Your task to perform on an android device: allow notifications from all sites in the chrome app Image 0: 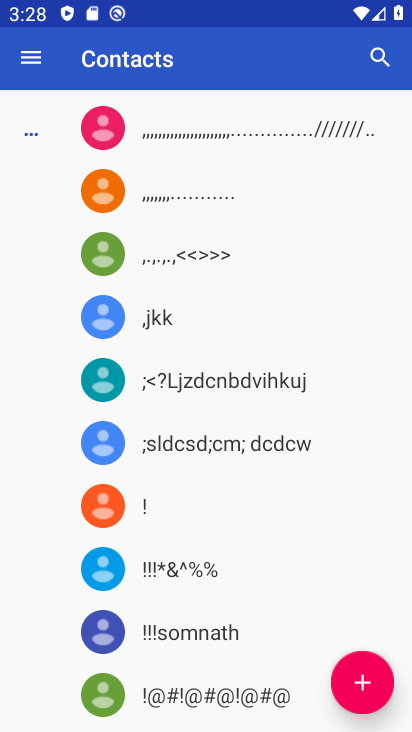
Step 0: press home button
Your task to perform on an android device: allow notifications from all sites in the chrome app Image 1: 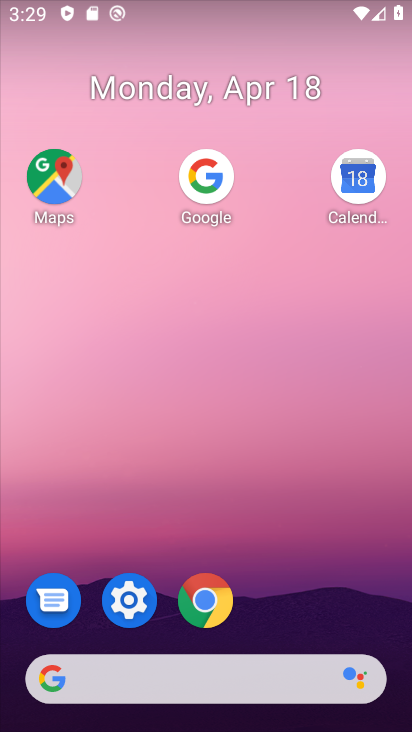
Step 1: click (190, 89)
Your task to perform on an android device: allow notifications from all sites in the chrome app Image 2: 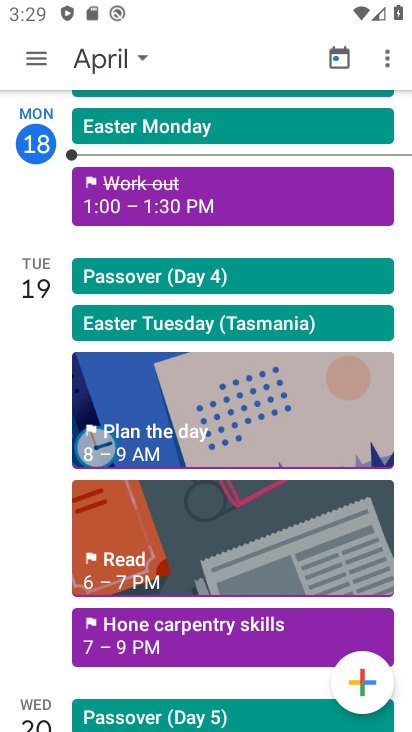
Step 2: click (209, 594)
Your task to perform on an android device: allow notifications from all sites in the chrome app Image 3: 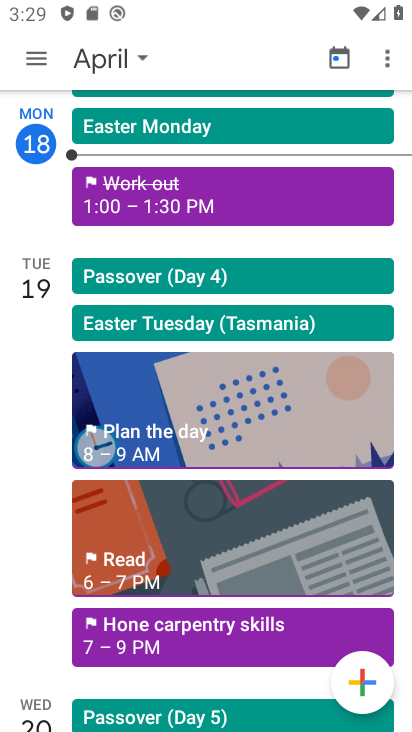
Step 3: drag from (332, 561) to (235, 165)
Your task to perform on an android device: allow notifications from all sites in the chrome app Image 4: 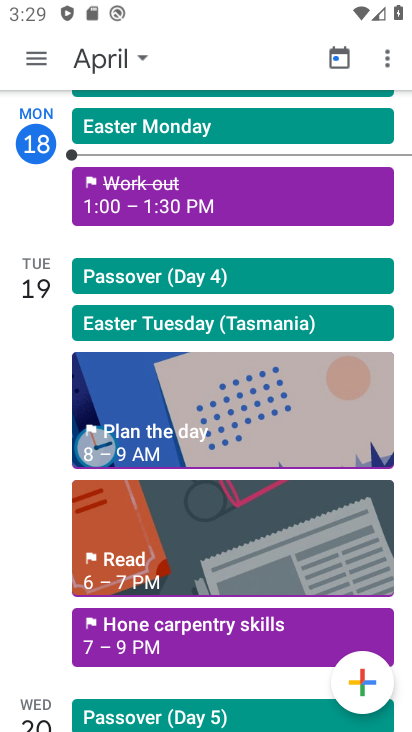
Step 4: press home button
Your task to perform on an android device: allow notifications from all sites in the chrome app Image 5: 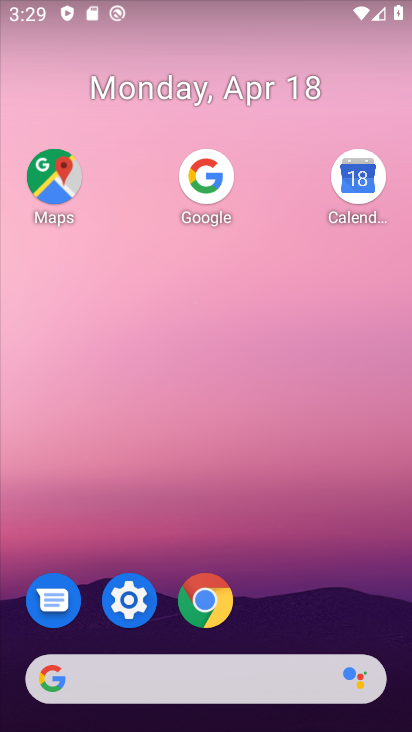
Step 5: drag from (336, 615) to (106, 78)
Your task to perform on an android device: allow notifications from all sites in the chrome app Image 6: 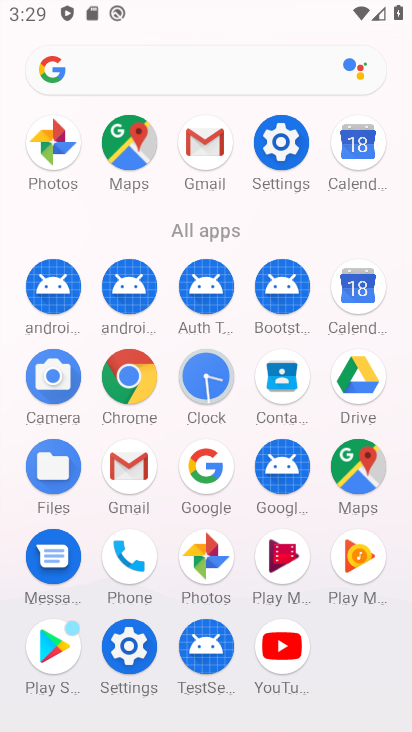
Step 6: click (132, 379)
Your task to perform on an android device: allow notifications from all sites in the chrome app Image 7: 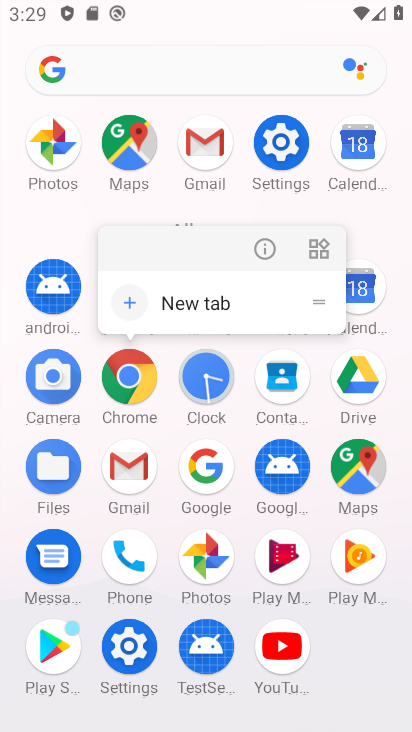
Step 7: click (132, 379)
Your task to perform on an android device: allow notifications from all sites in the chrome app Image 8: 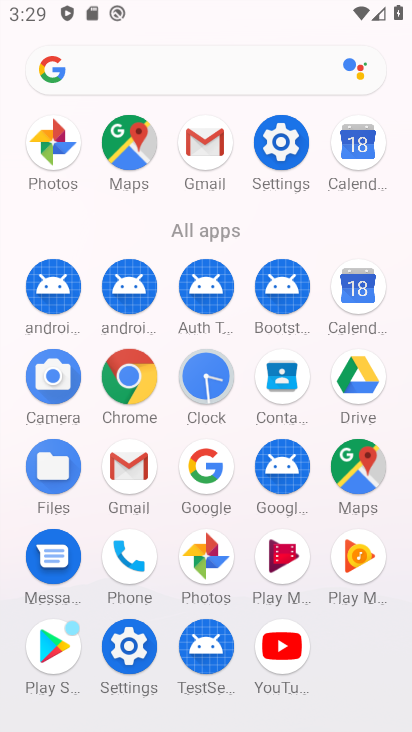
Step 8: click (132, 379)
Your task to perform on an android device: allow notifications from all sites in the chrome app Image 9: 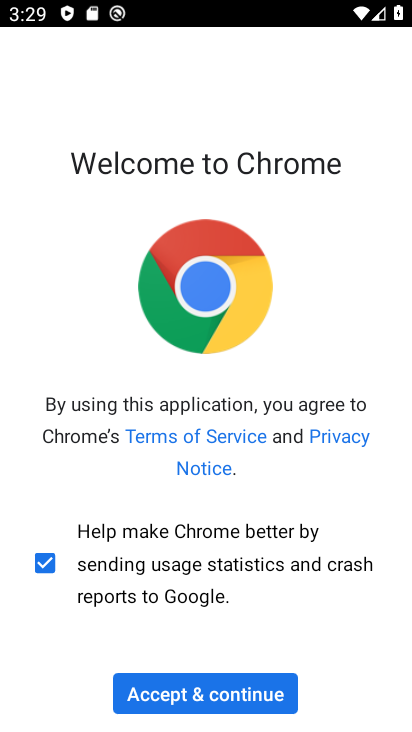
Step 9: click (213, 700)
Your task to perform on an android device: allow notifications from all sites in the chrome app Image 10: 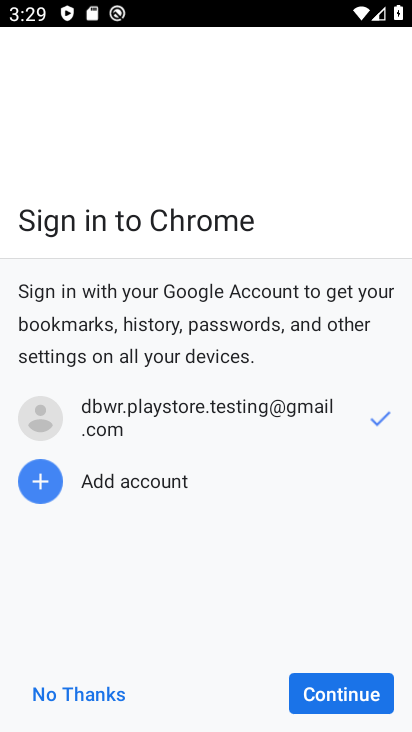
Step 10: click (325, 691)
Your task to perform on an android device: allow notifications from all sites in the chrome app Image 11: 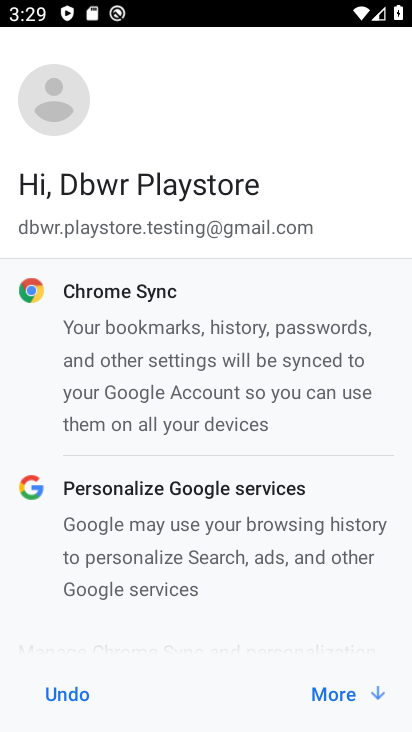
Step 11: click (346, 686)
Your task to perform on an android device: allow notifications from all sites in the chrome app Image 12: 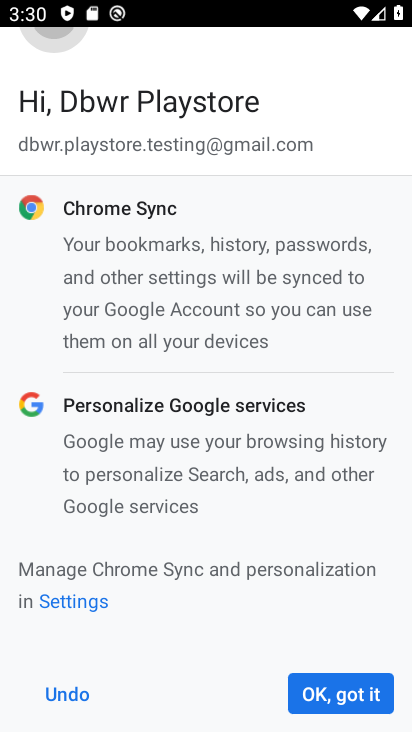
Step 12: click (346, 698)
Your task to perform on an android device: allow notifications from all sites in the chrome app Image 13: 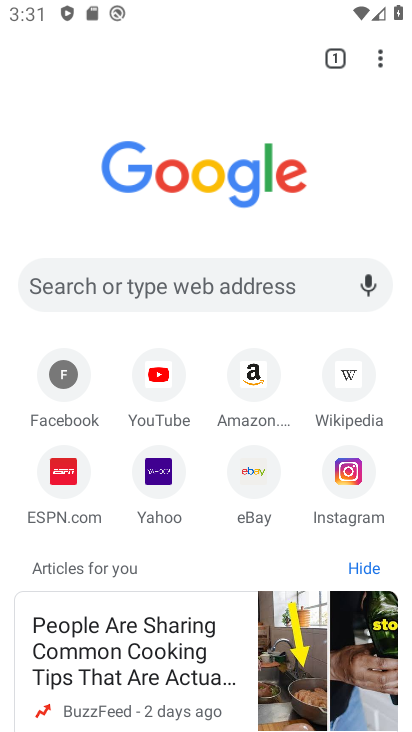
Step 13: click (377, 53)
Your task to perform on an android device: allow notifications from all sites in the chrome app Image 14: 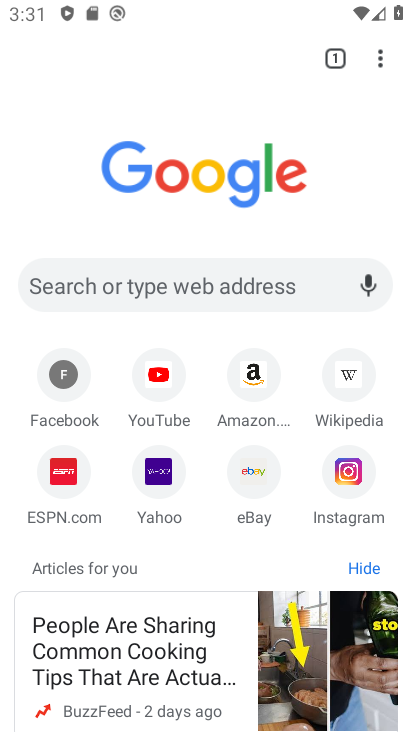
Step 14: click (378, 61)
Your task to perform on an android device: allow notifications from all sites in the chrome app Image 15: 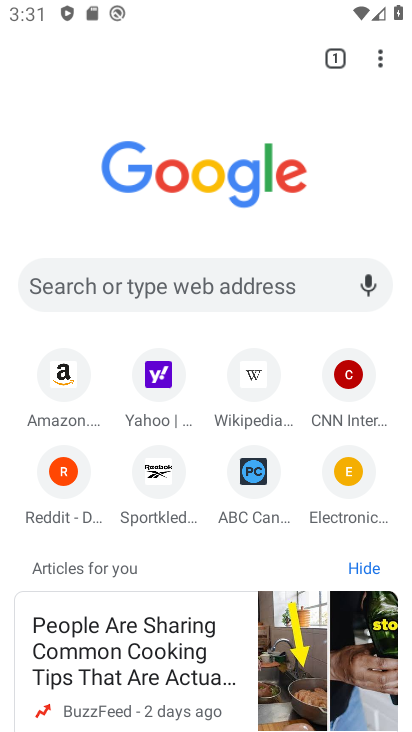
Step 15: click (374, 59)
Your task to perform on an android device: allow notifications from all sites in the chrome app Image 16: 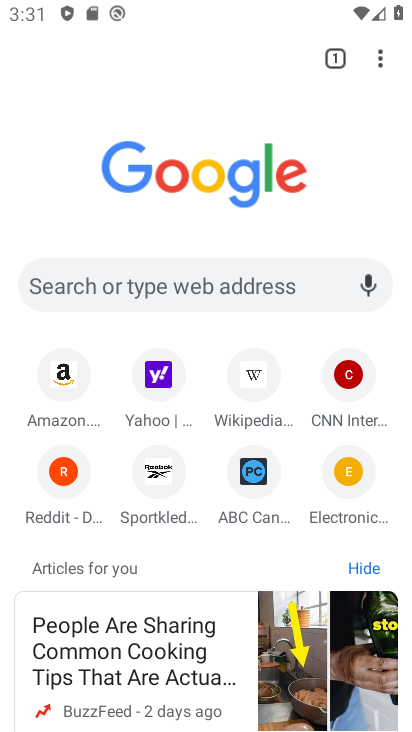
Step 16: click (374, 45)
Your task to perform on an android device: allow notifications from all sites in the chrome app Image 17: 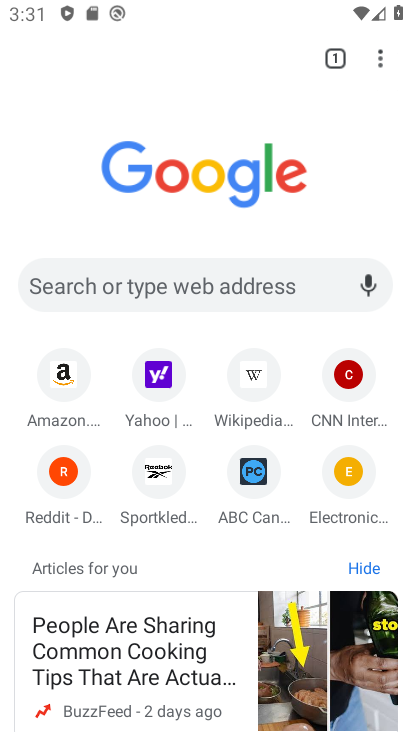
Step 17: click (374, 58)
Your task to perform on an android device: allow notifications from all sites in the chrome app Image 18: 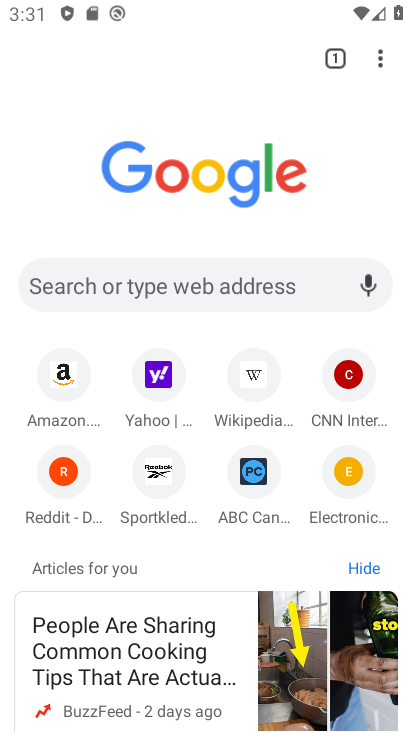
Step 18: click (378, 51)
Your task to perform on an android device: allow notifications from all sites in the chrome app Image 19: 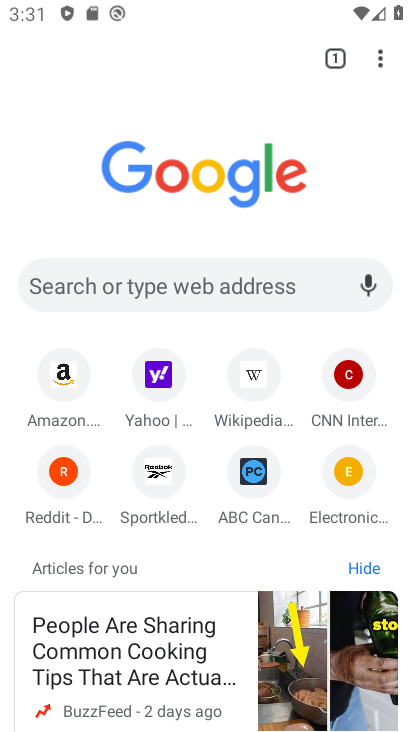
Step 19: click (379, 56)
Your task to perform on an android device: allow notifications from all sites in the chrome app Image 20: 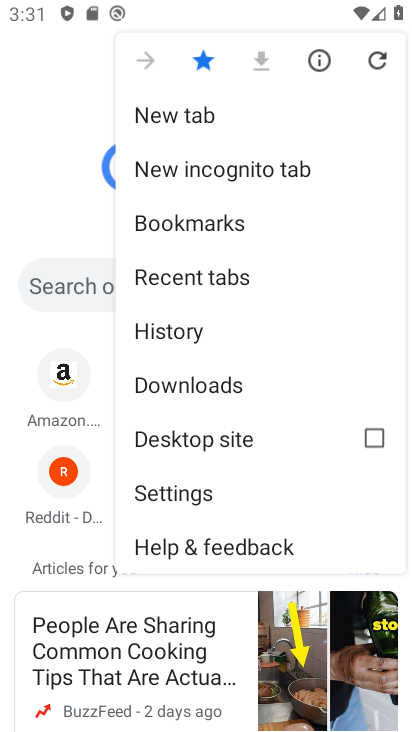
Step 20: click (172, 496)
Your task to perform on an android device: allow notifications from all sites in the chrome app Image 21: 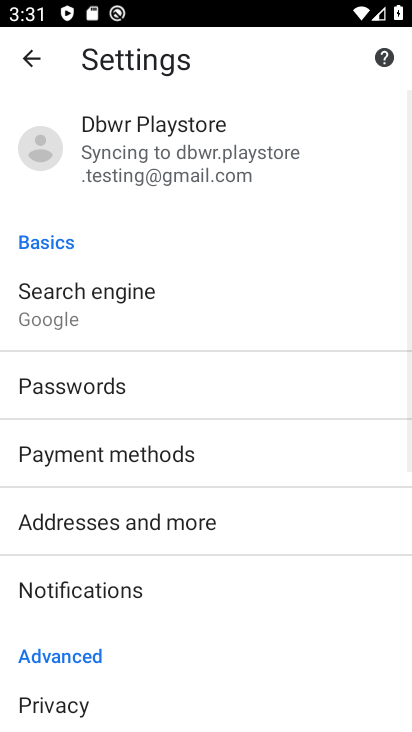
Step 21: drag from (193, 589) to (228, 221)
Your task to perform on an android device: allow notifications from all sites in the chrome app Image 22: 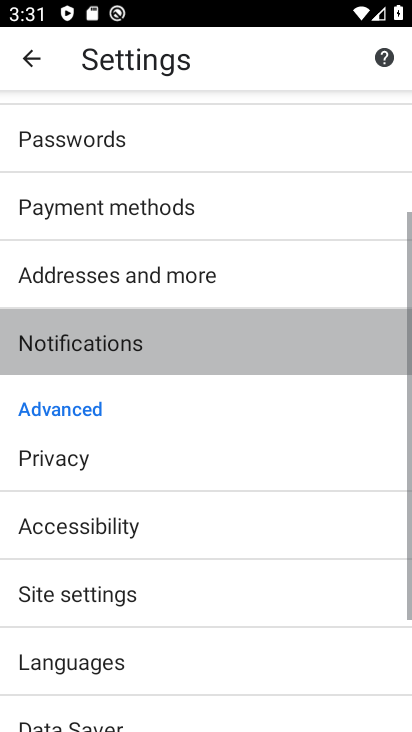
Step 22: drag from (231, 506) to (201, 90)
Your task to perform on an android device: allow notifications from all sites in the chrome app Image 23: 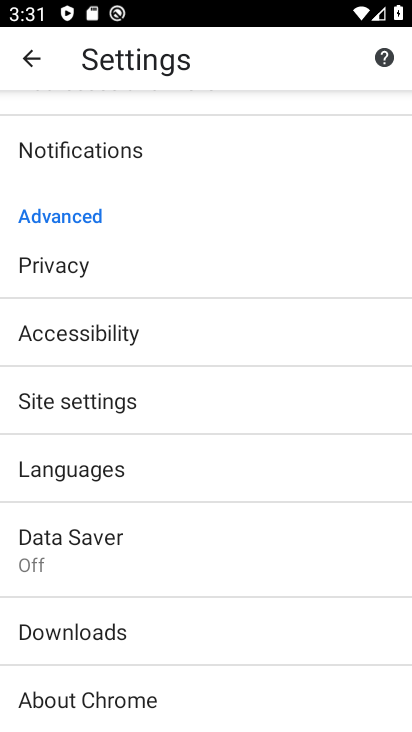
Step 23: click (80, 397)
Your task to perform on an android device: allow notifications from all sites in the chrome app Image 24: 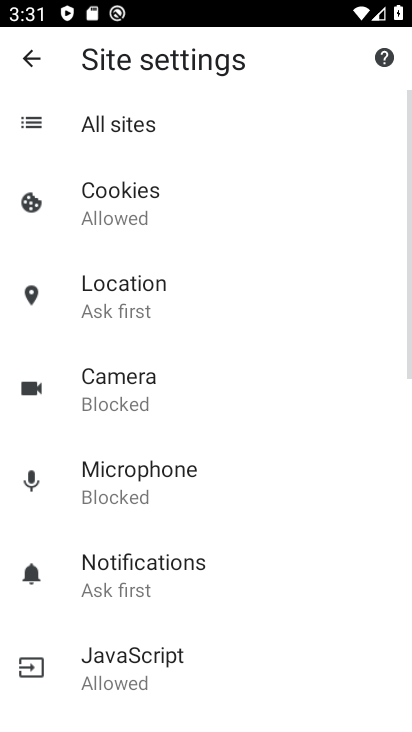
Step 24: click (136, 115)
Your task to perform on an android device: allow notifications from all sites in the chrome app Image 25: 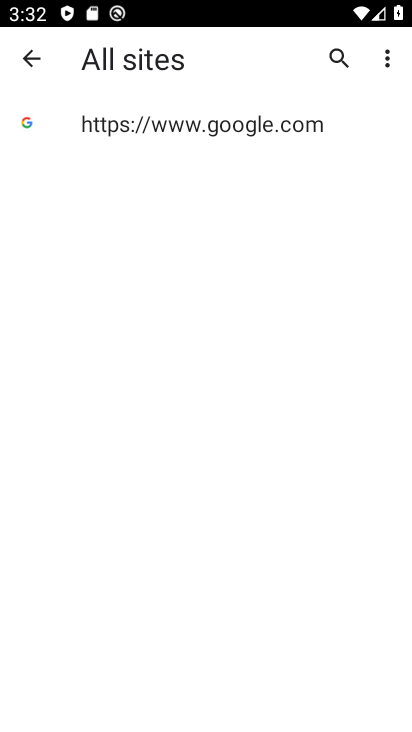
Step 25: click (170, 122)
Your task to perform on an android device: allow notifications from all sites in the chrome app Image 26: 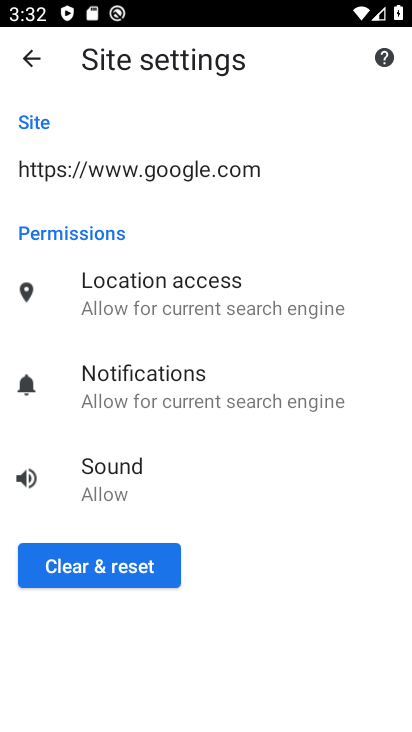
Step 26: click (129, 289)
Your task to perform on an android device: allow notifications from all sites in the chrome app Image 27: 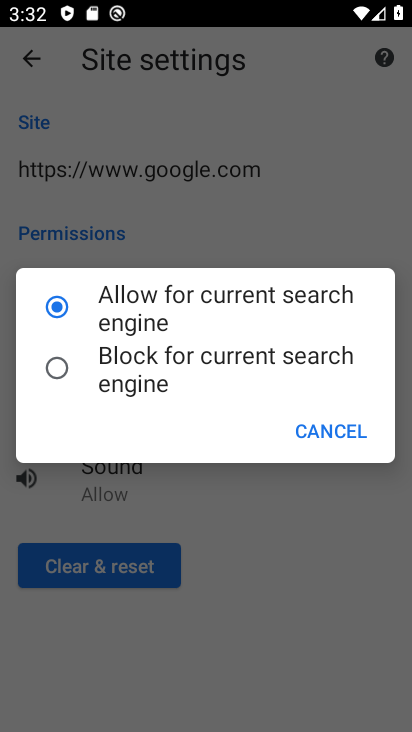
Step 27: click (317, 432)
Your task to perform on an android device: allow notifications from all sites in the chrome app Image 28: 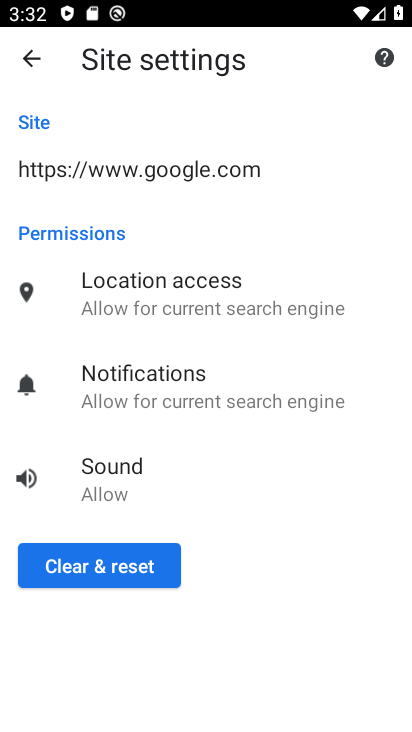
Step 28: click (106, 404)
Your task to perform on an android device: allow notifications from all sites in the chrome app Image 29: 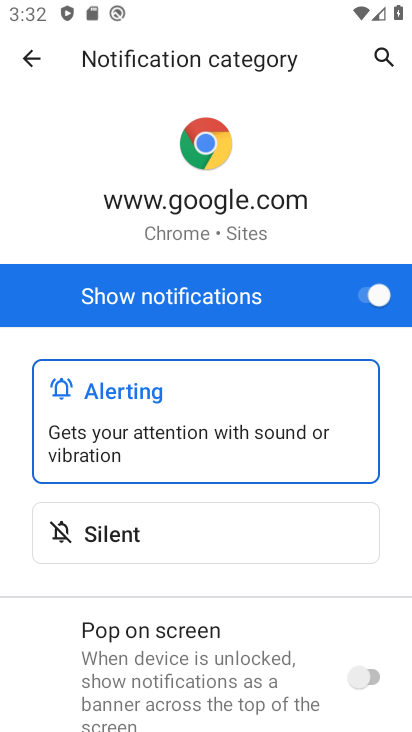
Step 29: click (21, 60)
Your task to perform on an android device: allow notifications from all sites in the chrome app Image 30: 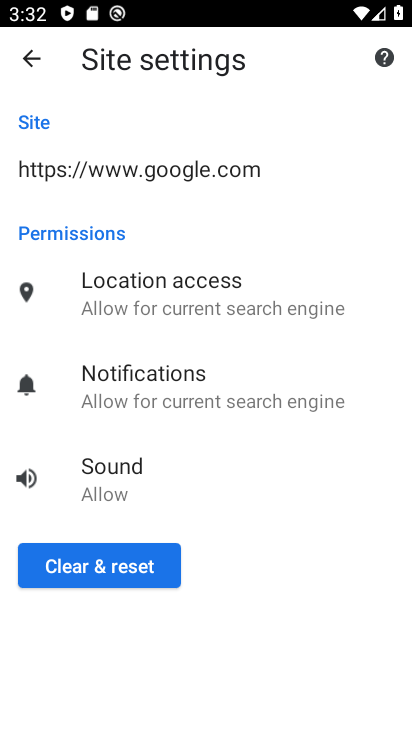
Step 30: click (91, 477)
Your task to perform on an android device: allow notifications from all sites in the chrome app Image 31: 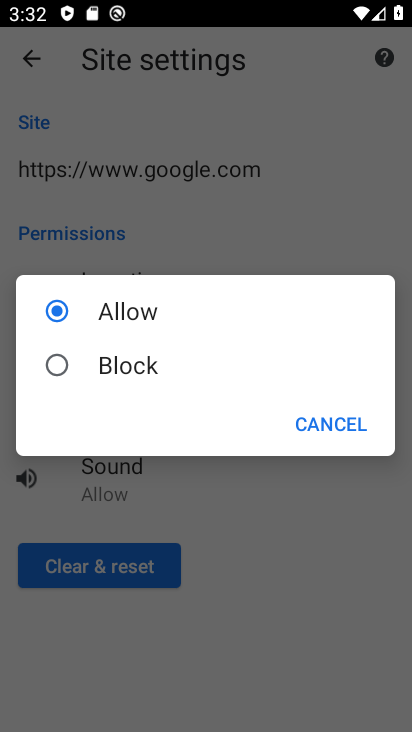
Step 31: click (323, 435)
Your task to perform on an android device: allow notifications from all sites in the chrome app Image 32: 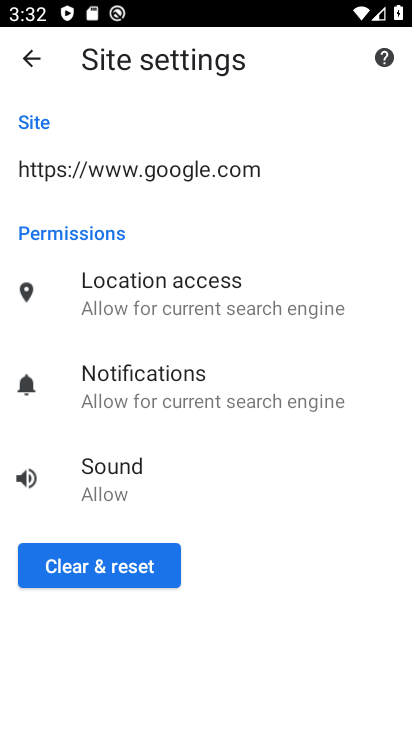
Step 32: click (94, 561)
Your task to perform on an android device: allow notifications from all sites in the chrome app Image 33: 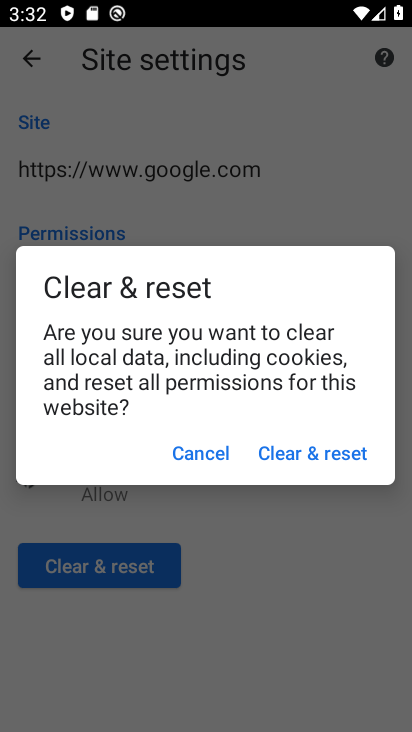
Step 33: click (202, 457)
Your task to perform on an android device: allow notifications from all sites in the chrome app Image 34: 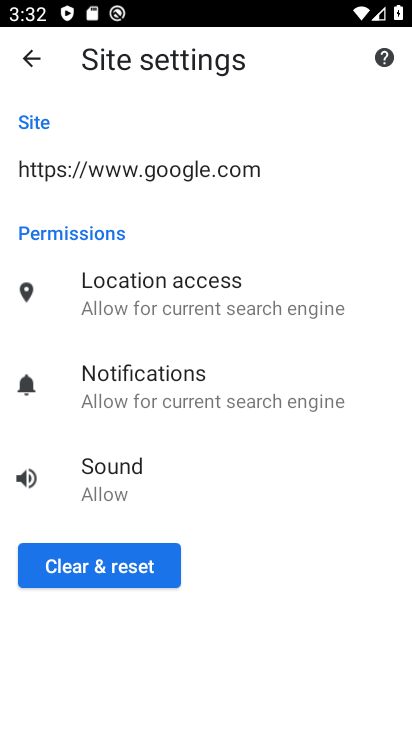
Step 34: task complete